Your task to perform on an android device: find which apps use the phone's location Image 0: 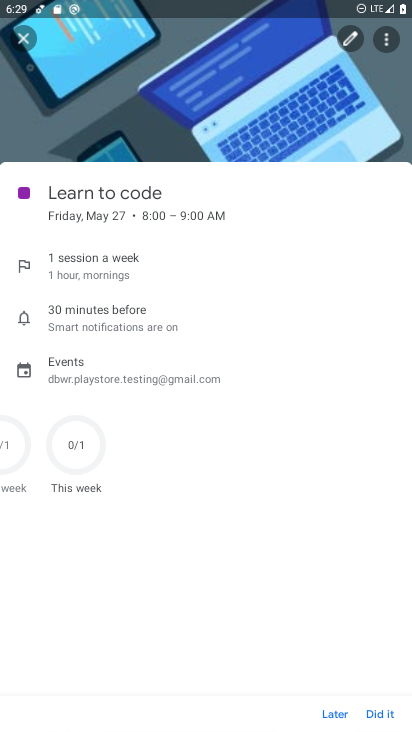
Step 0: press home button
Your task to perform on an android device: find which apps use the phone's location Image 1: 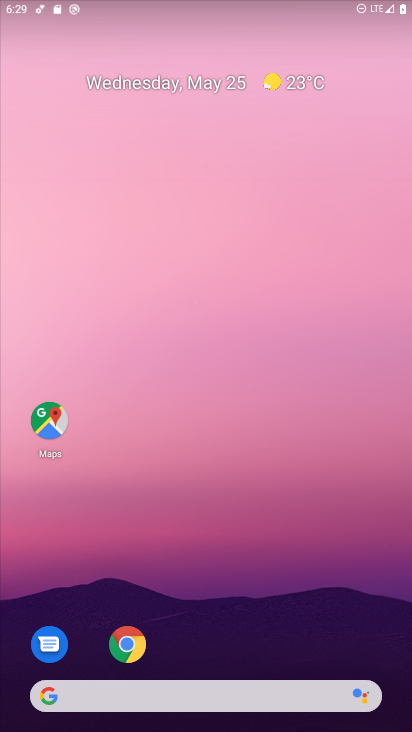
Step 1: drag from (357, 652) to (264, 3)
Your task to perform on an android device: find which apps use the phone's location Image 2: 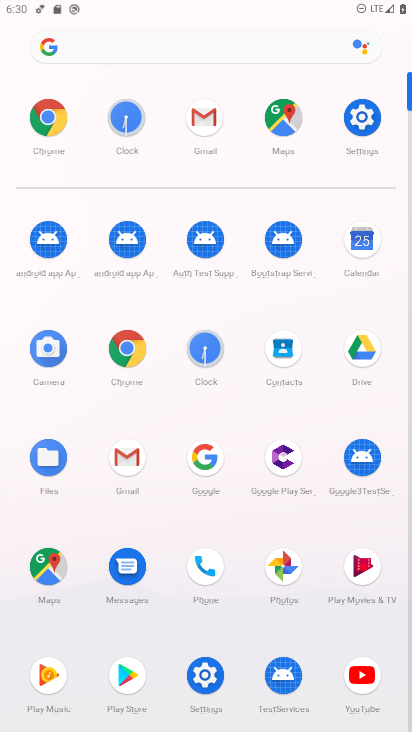
Step 2: click (218, 678)
Your task to perform on an android device: find which apps use the phone's location Image 3: 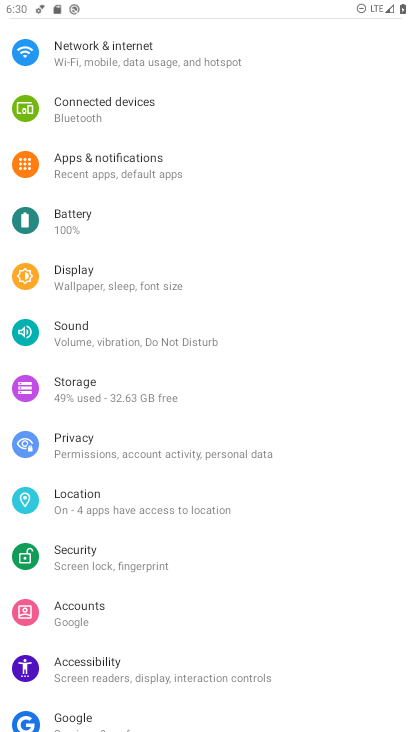
Step 3: click (109, 513)
Your task to perform on an android device: find which apps use the phone's location Image 4: 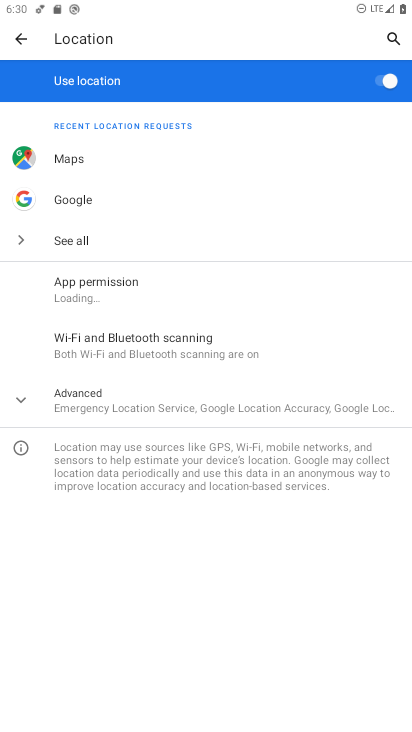
Step 4: click (171, 282)
Your task to perform on an android device: find which apps use the phone's location Image 5: 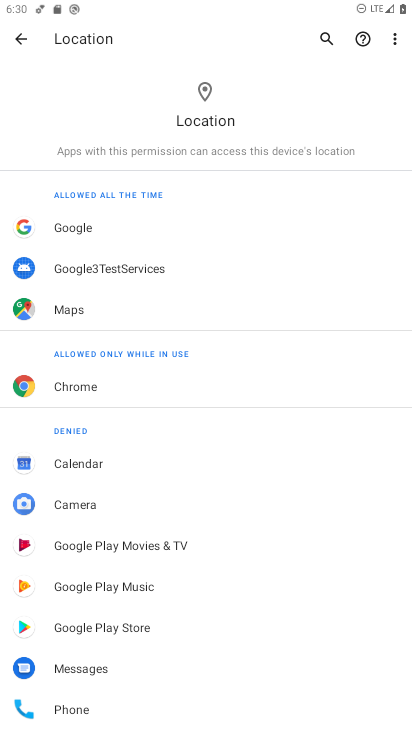
Step 5: click (79, 702)
Your task to perform on an android device: find which apps use the phone's location Image 6: 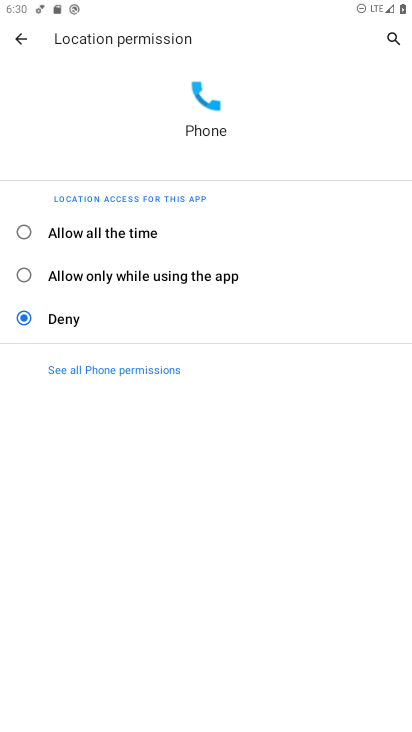
Step 6: click (40, 232)
Your task to perform on an android device: find which apps use the phone's location Image 7: 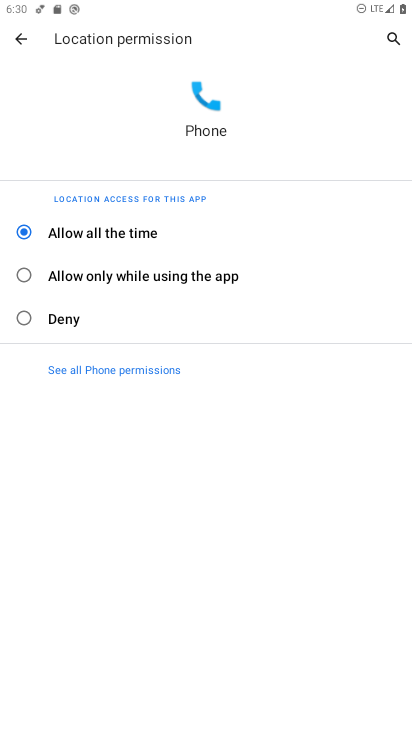
Step 7: task complete